Your task to perform on an android device: add a contact in the contacts app Image 0: 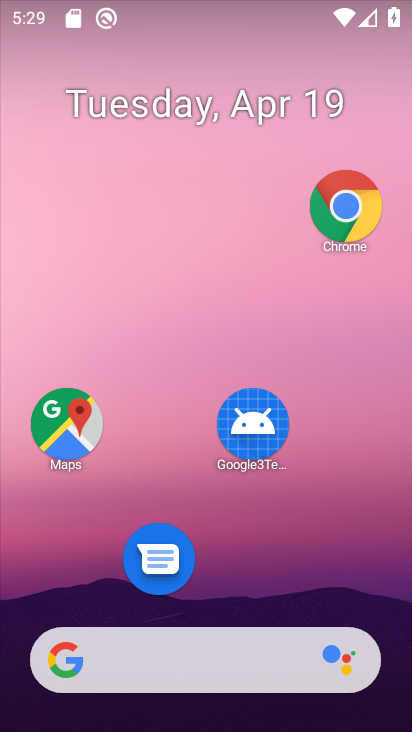
Step 0: drag from (207, 701) to (245, 195)
Your task to perform on an android device: add a contact in the contacts app Image 1: 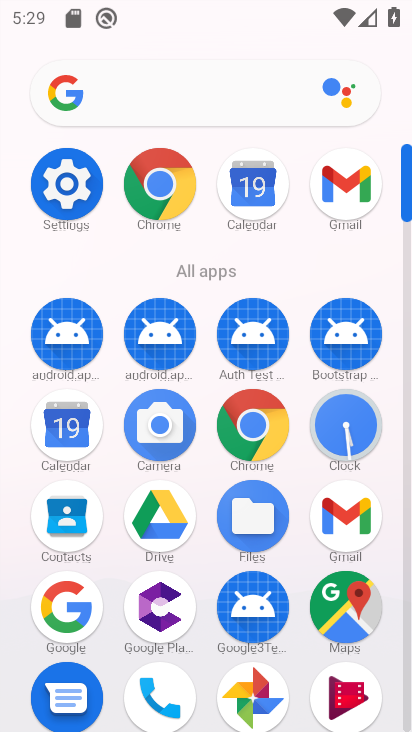
Step 1: drag from (185, 669) to (209, 420)
Your task to perform on an android device: add a contact in the contacts app Image 2: 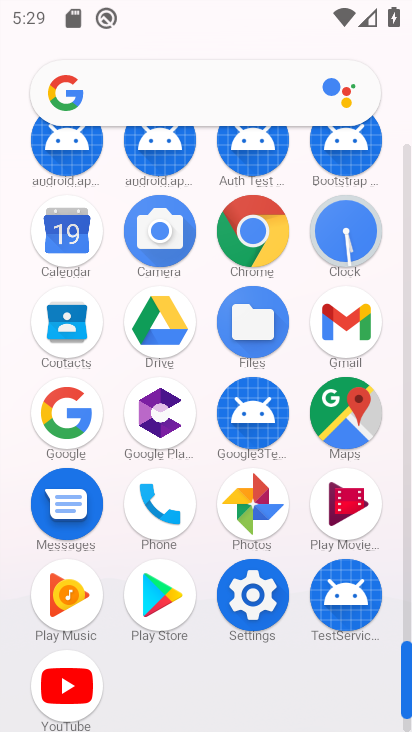
Step 2: click (66, 320)
Your task to perform on an android device: add a contact in the contacts app Image 3: 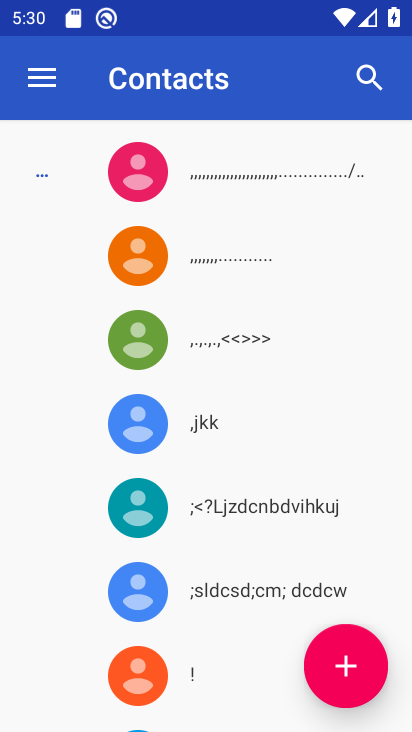
Step 3: click (352, 670)
Your task to perform on an android device: add a contact in the contacts app Image 4: 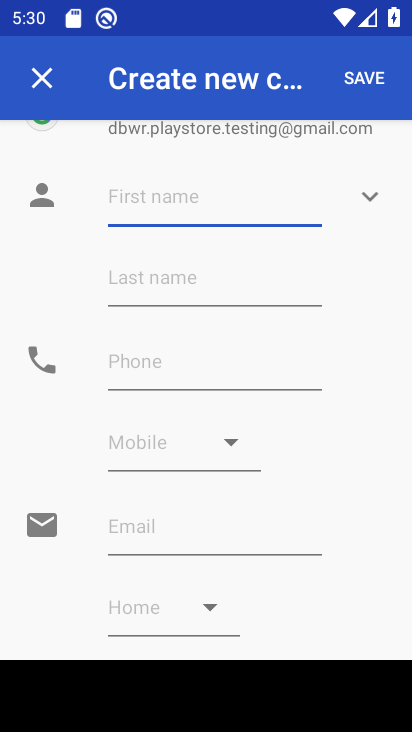
Step 4: type "abc"
Your task to perform on an android device: add a contact in the contacts app Image 5: 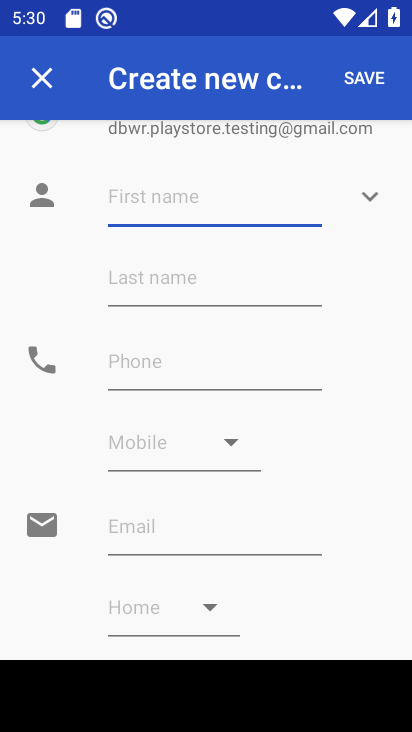
Step 5: click (181, 372)
Your task to perform on an android device: add a contact in the contacts app Image 6: 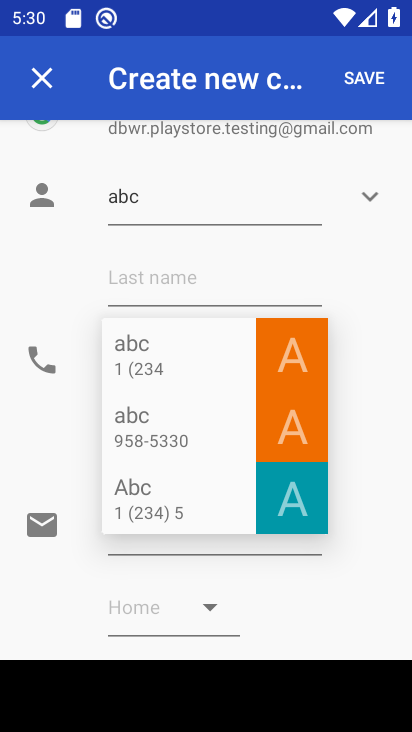
Step 6: type "1234567890"
Your task to perform on an android device: add a contact in the contacts app Image 7: 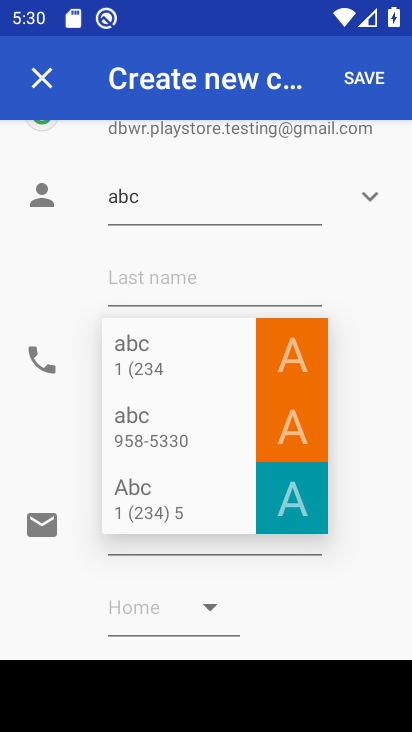
Step 7: click (310, 581)
Your task to perform on an android device: add a contact in the contacts app Image 8: 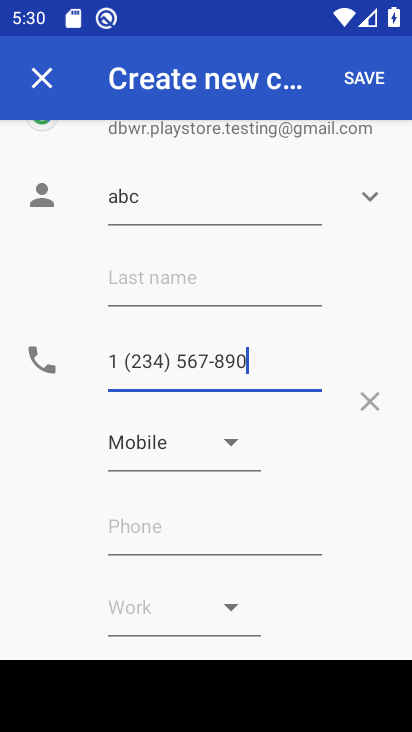
Step 8: task complete